Your task to perform on an android device: Open calendar and show me the third week of next month Image 0: 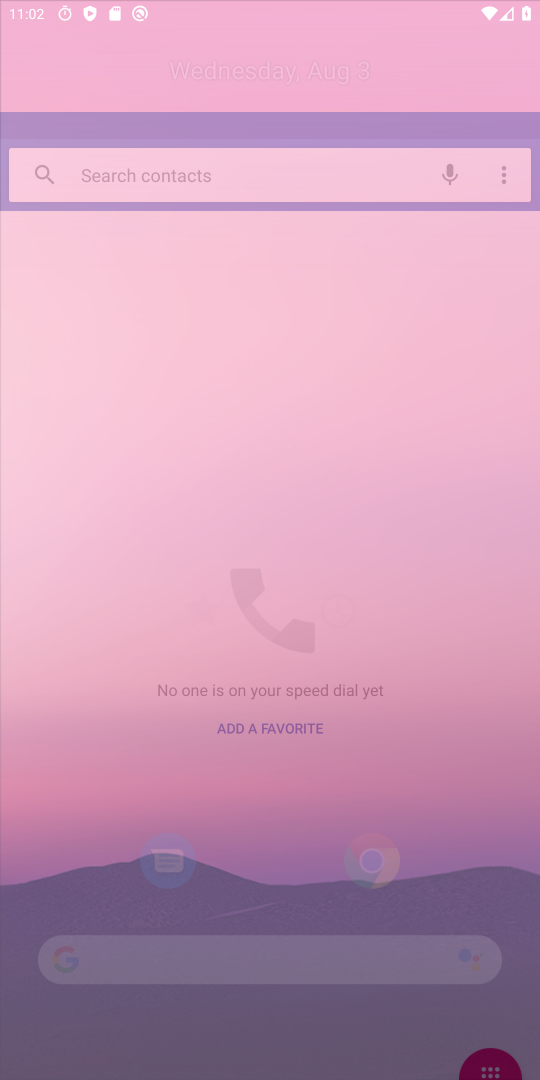
Step 0: press home button
Your task to perform on an android device: Open calendar and show me the third week of next month Image 1: 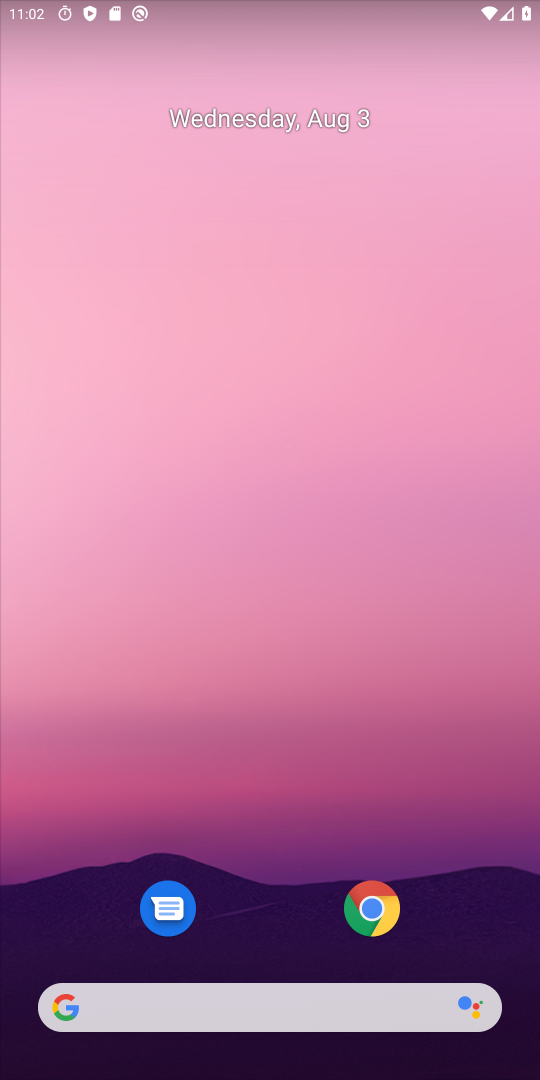
Step 1: drag from (301, 1027) to (360, 171)
Your task to perform on an android device: Open calendar and show me the third week of next month Image 2: 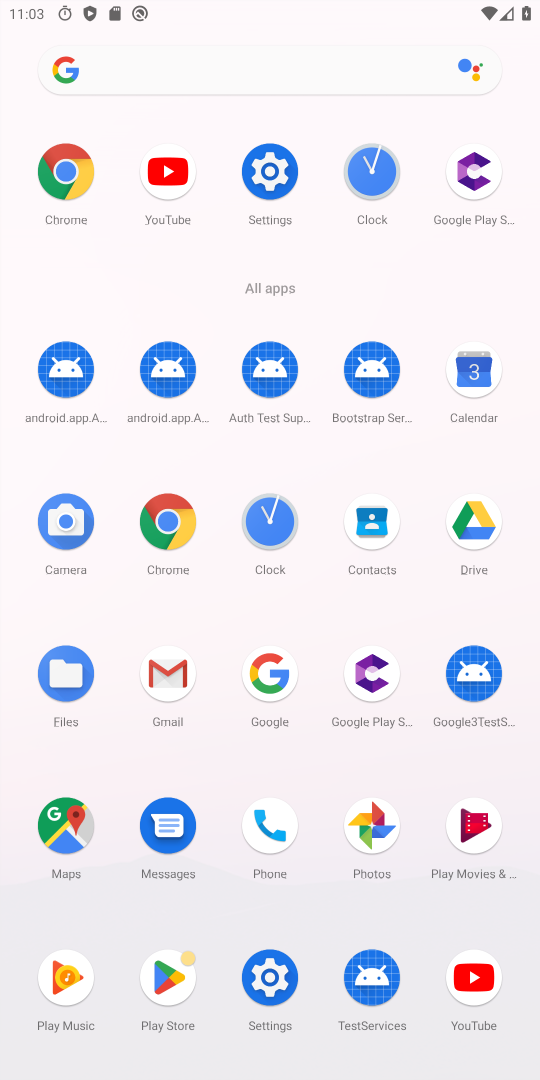
Step 2: click (461, 384)
Your task to perform on an android device: Open calendar and show me the third week of next month Image 3: 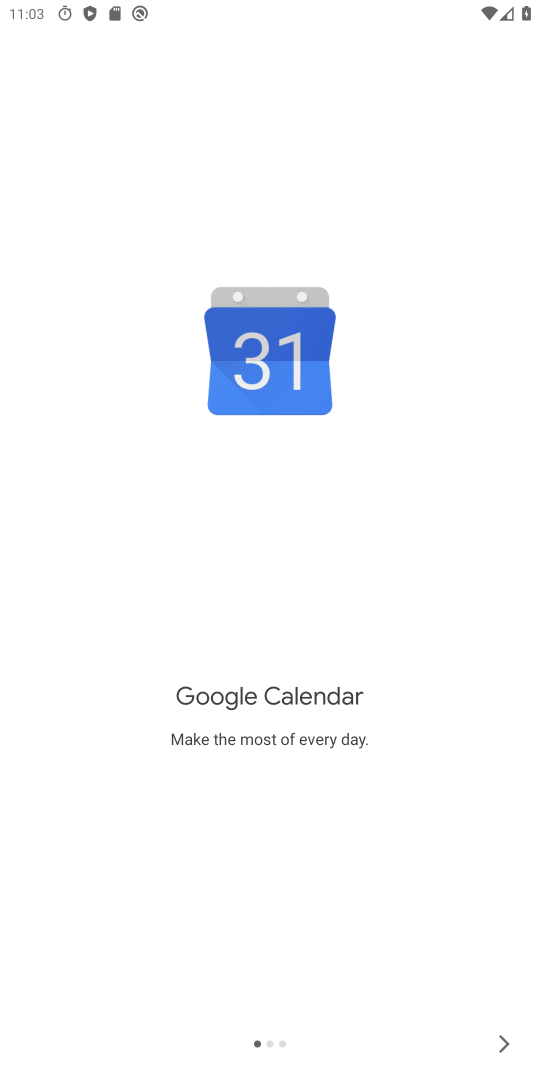
Step 3: click (492, 1037)
Your task to perform on an android device: Open calendar and show me the third week of next month Image 4: 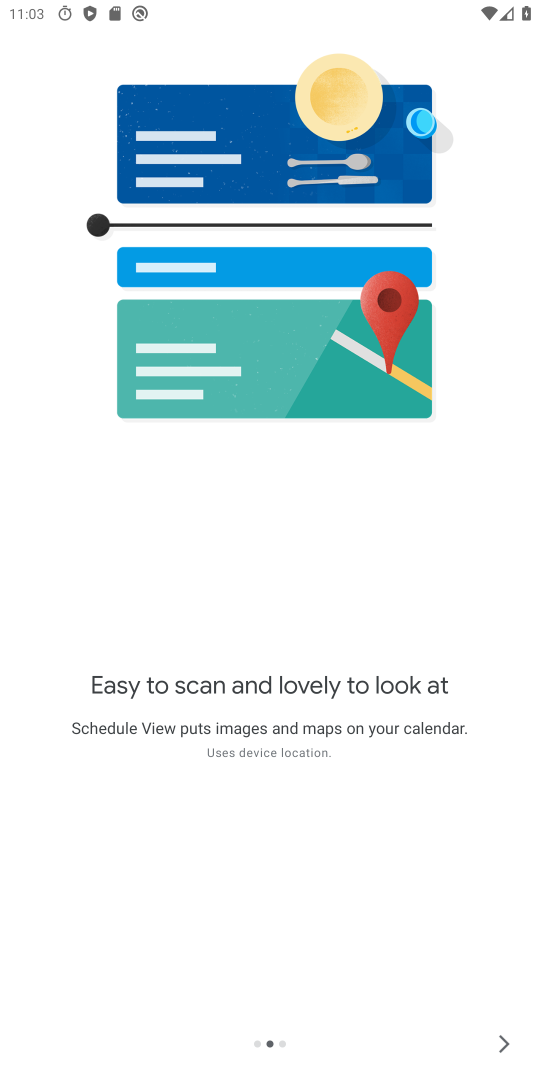
Step 4: click (480, 1058)
Your task to perform on an android device: Open calendar and show me the third week of next month Image 5: 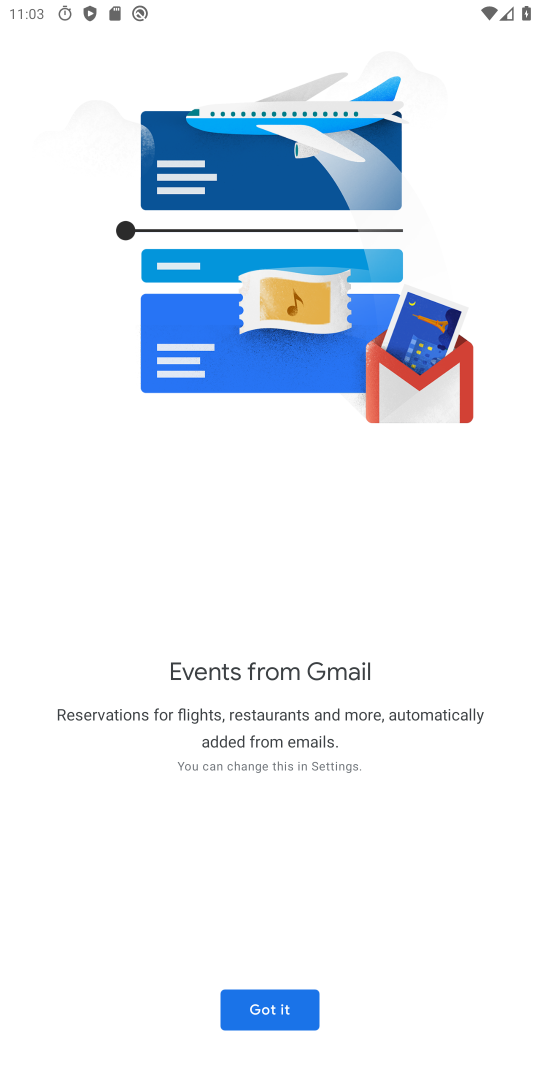
Step 5: click (289, 998)
Your task to perform on an android device: Open calendar and show me the third week of next month Image 6: 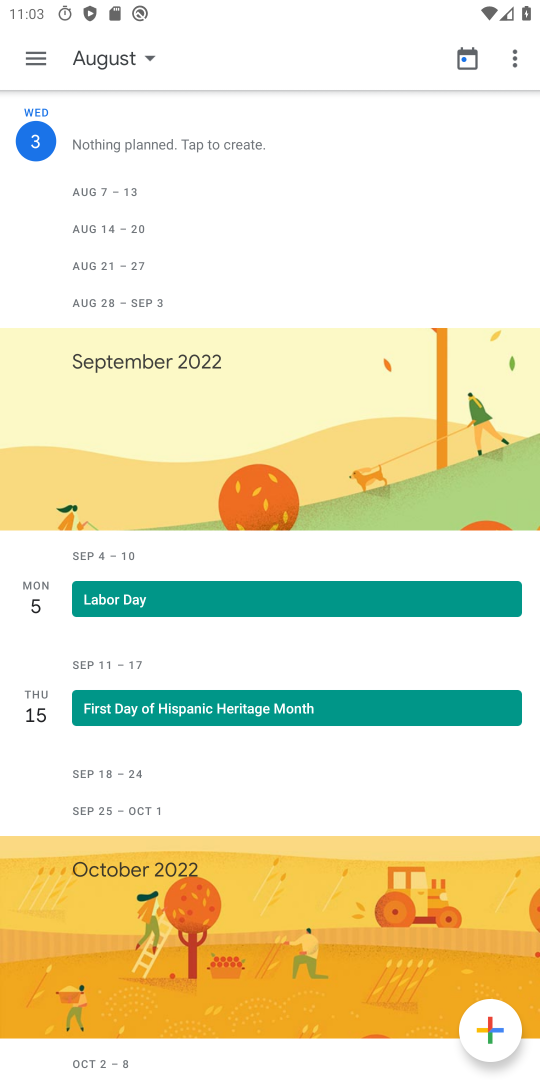
Step 6: click (33, 67)
Your task to perform on an android device: Open calendar and show me the third week of next month Image 7: 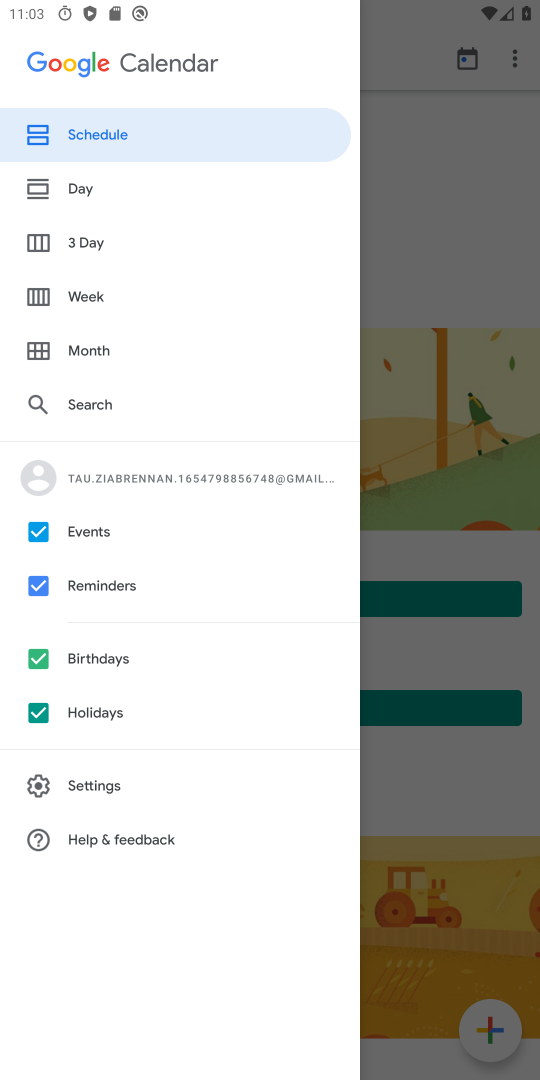
Step 7: click (139, 346)
Your task to perform on an android device: Open calendar and show me the third week of next month Image 8: 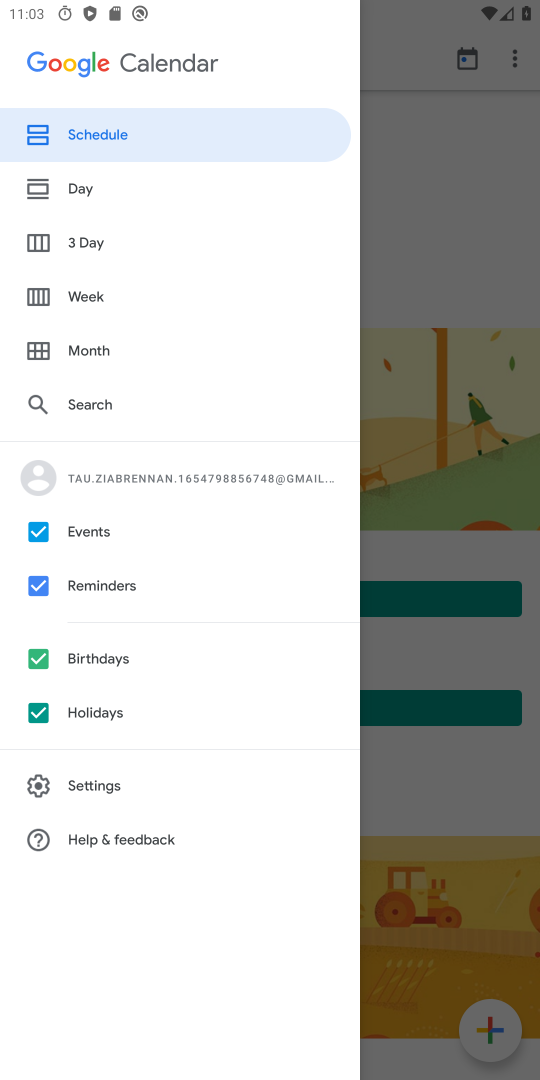
Step 8: click (115, 338)
Your task to perform on an android device: Open calendar and show me the third week of next month Image 9: 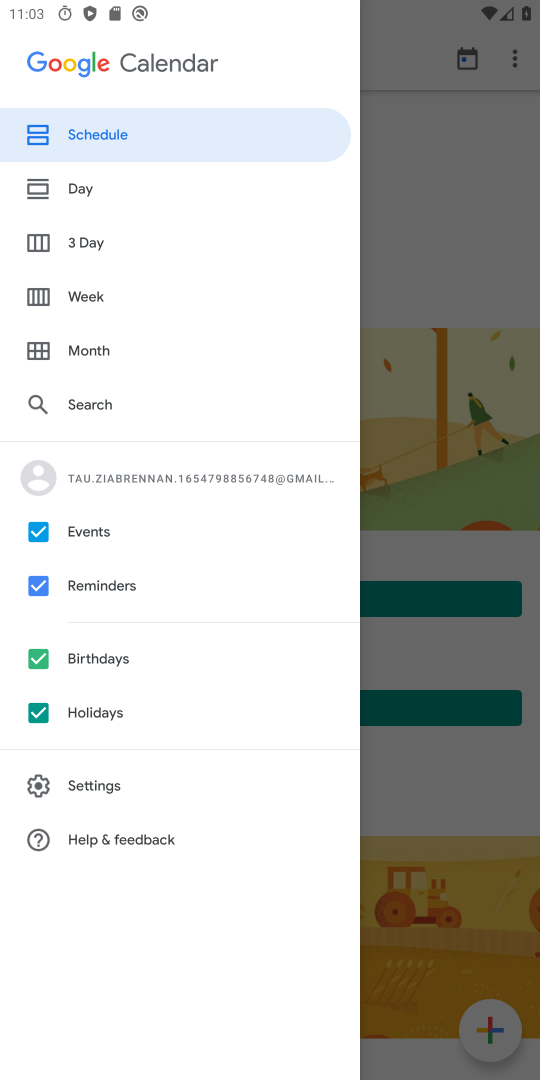
Step 9: click (111, 349)
Your task to perform on an android device: Open calendar and show me the third week of next month Image 10: 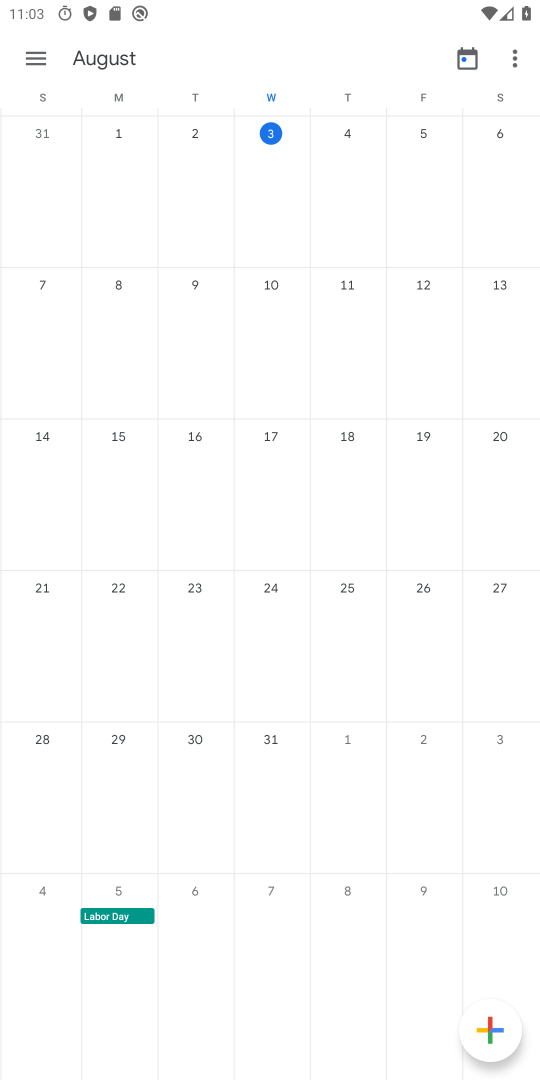
Step 10: drag from (447, 634) to (0, 473)
Your task to perform on an android device: Open calendar and show me the third week of next month Image 11: 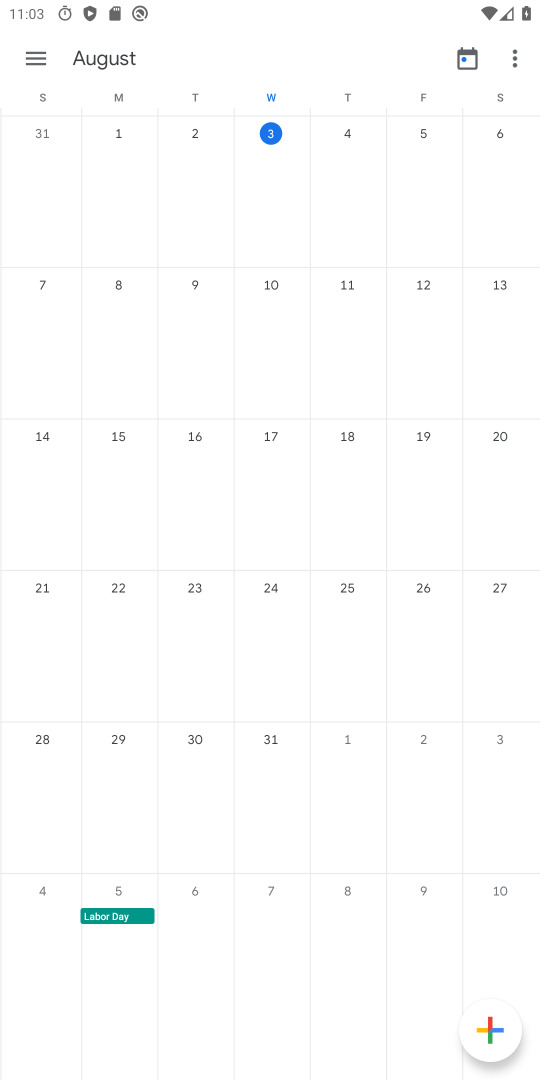
Step 11: drag from (521, 536) to (31, 687)
Your task to perform on an android device: Open calendar and show me the third week of next month Image 12: 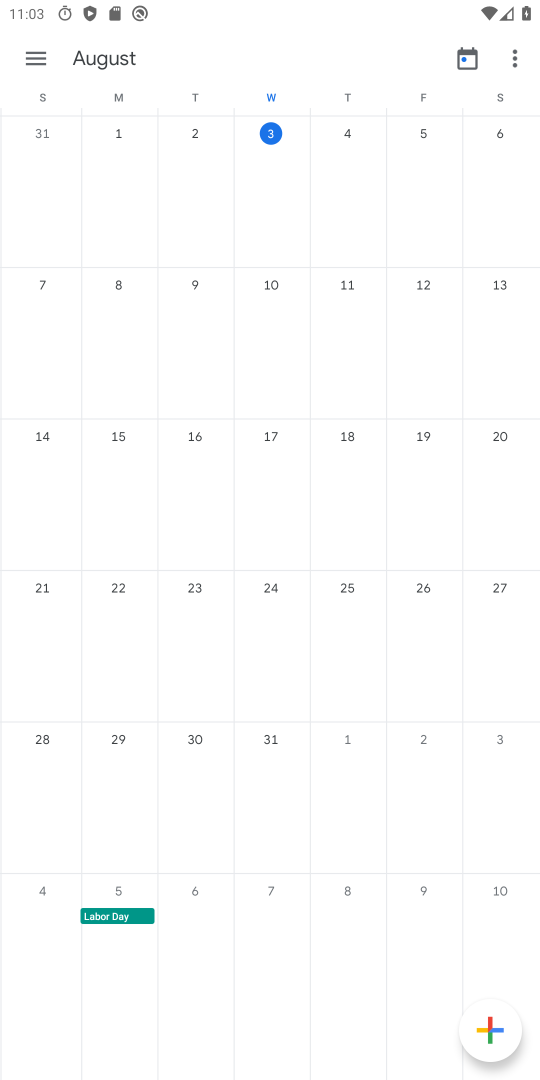
Step 12: drag from (519, 842) to (12, 680)
Your task to perform on an android device: Open calendar and show me the third week of next month Image 13: 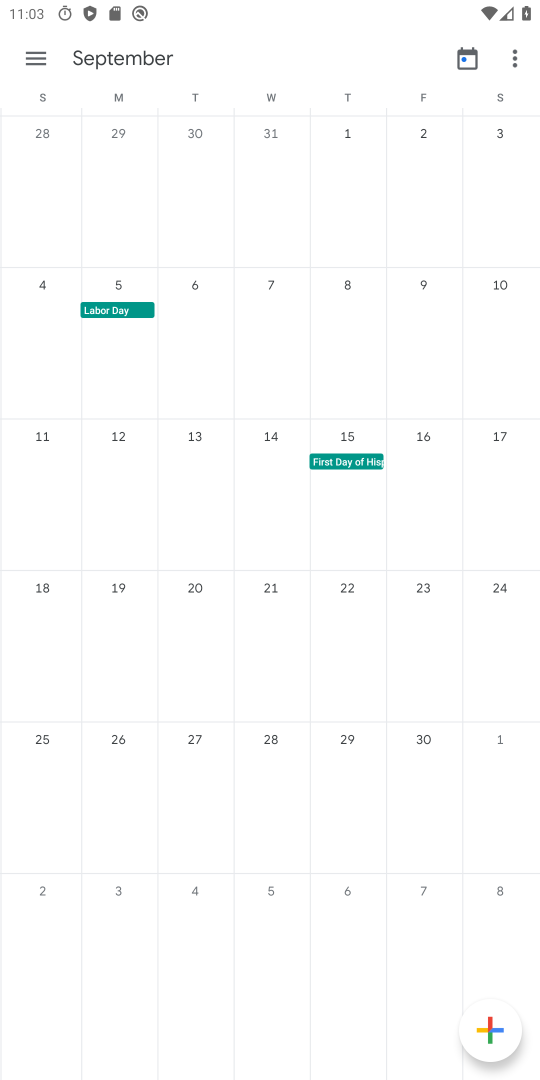
Step 13: click (124, 554)
Your task to perform on an android device: Open calendar and show me the third week of next month Image 14: 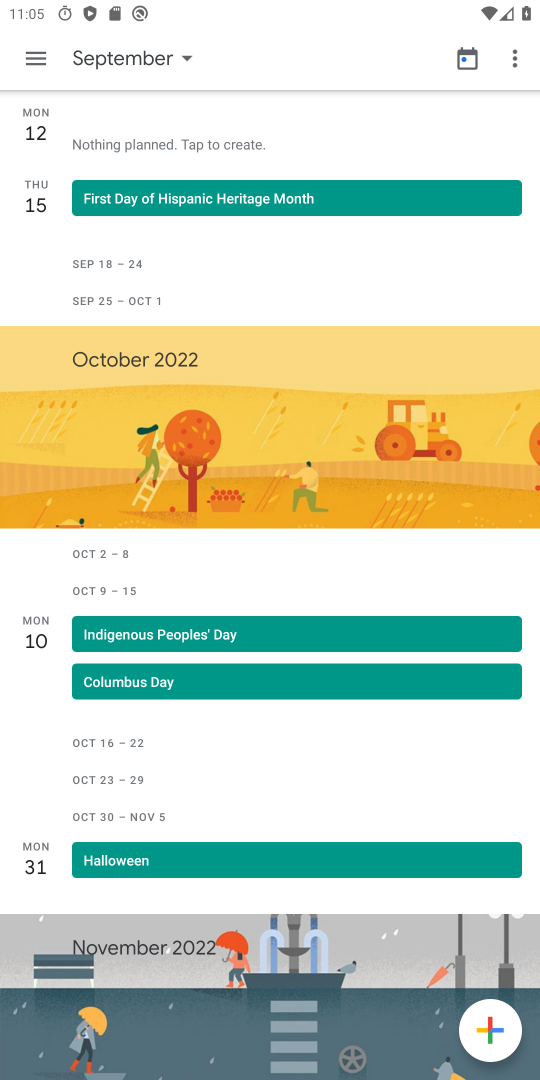
Step 14: task complete